Your task to perform on an android device: Open the calendar app, open the side menu, and click the "Day" option Image 0: 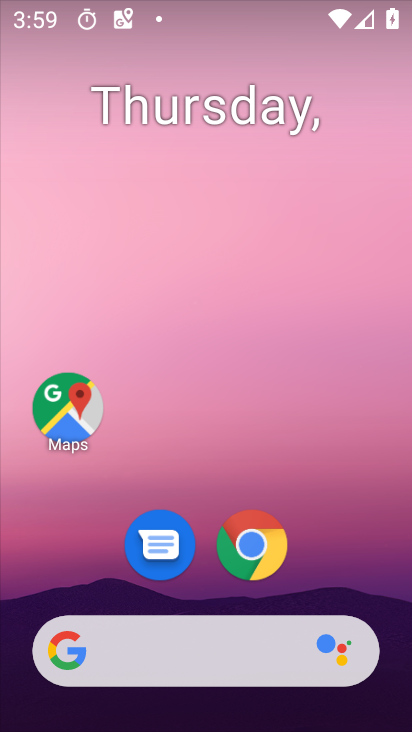
Step 0: drag from (190, 725) to (143, 200)
Your task to perform on an android device: Open the calendar app, open the side menu, and click the "Day" option Image 1: 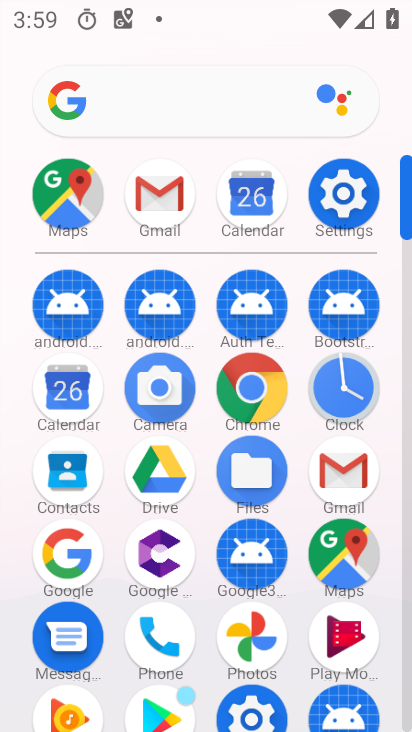
Step 1: click (71, 399)
Your task to perform on an android device: Open the calendar app, open the side menu, and click the "Day" option Image 2: 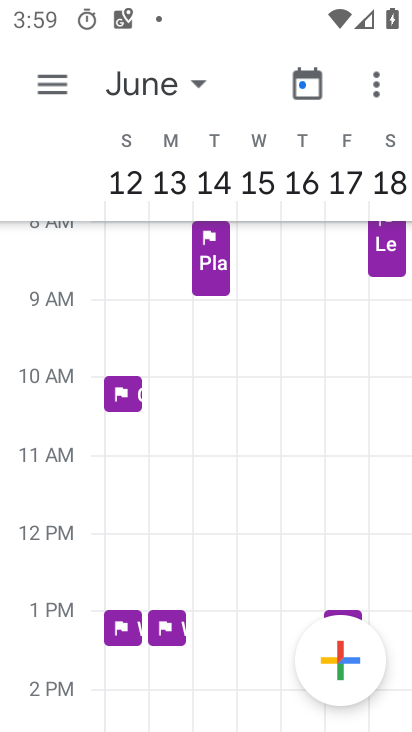
Step 2: click (58, 76)
Your task to perform on an android device: Open the calendar app, open the side menu, and click the "Day" option Image 3: 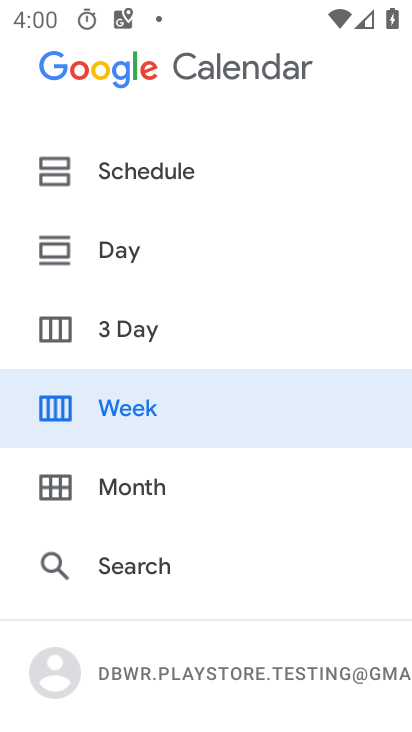
Step 3: click (132, 251)
Your task to perform on an android device: Open the calendar app, open the side menu, and click the "Day" option Image 4: 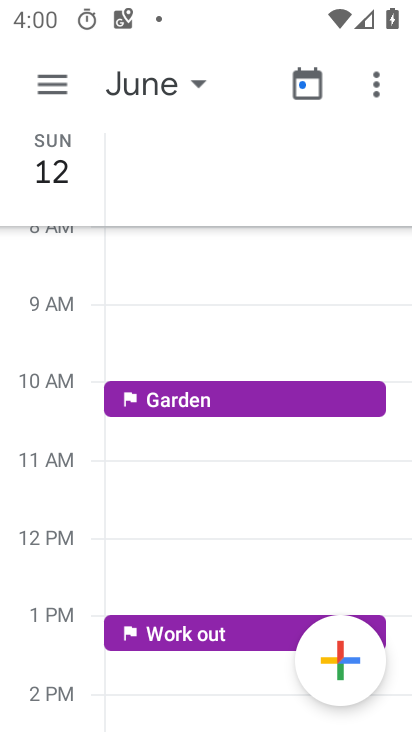
Step 4: task complete